Your task to perform on an android device: stop showing notifications on the lock screen Image 0: 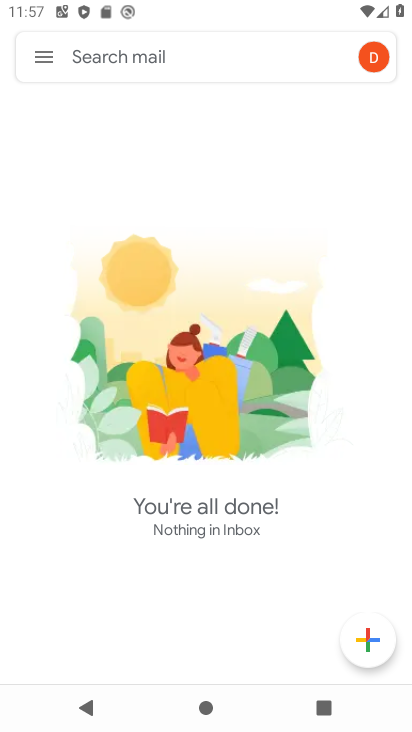
Step 0: press home button
Your task to perform on an android device: stop showing notifications on the lock screen Image 1: 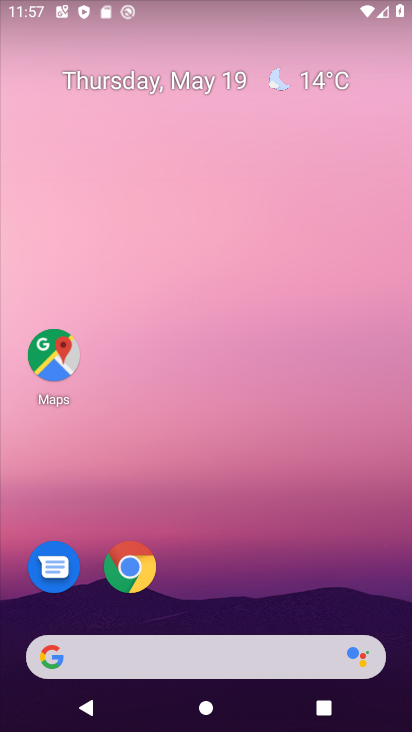
Step 1: drag from (311, 538) to (358, 101)
Your task to perform on an android device: stop showing notifications on the lock screen Image 2: 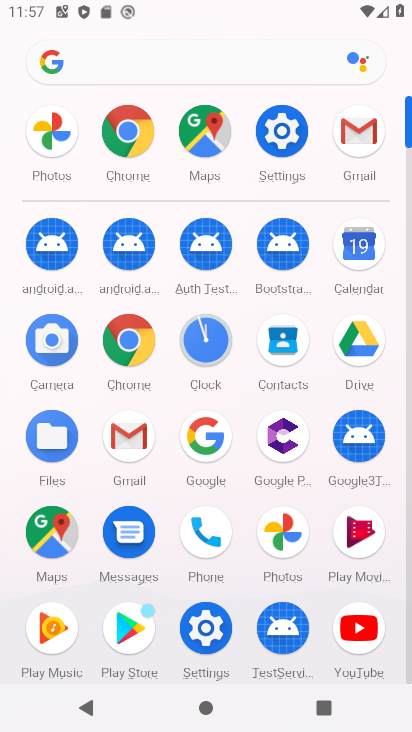
Step 2: click (281, 147)
Your task to perform on an android device: stop showing notifications on the lock screen Image 3: 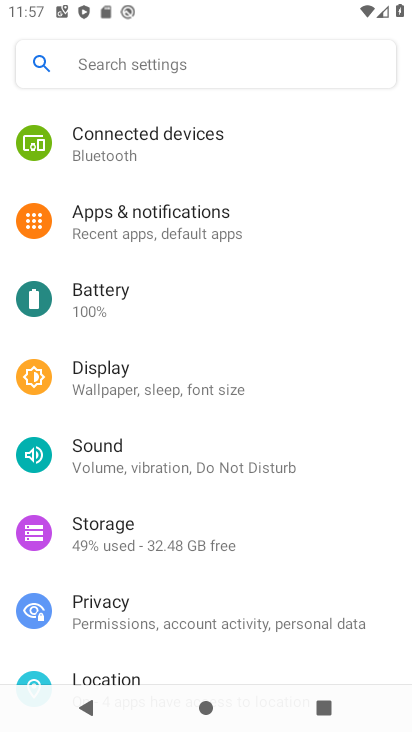
Step 3: click (212, 230)
Your task to perform on an android device: stop showing notifications on the lock screen Image 4: 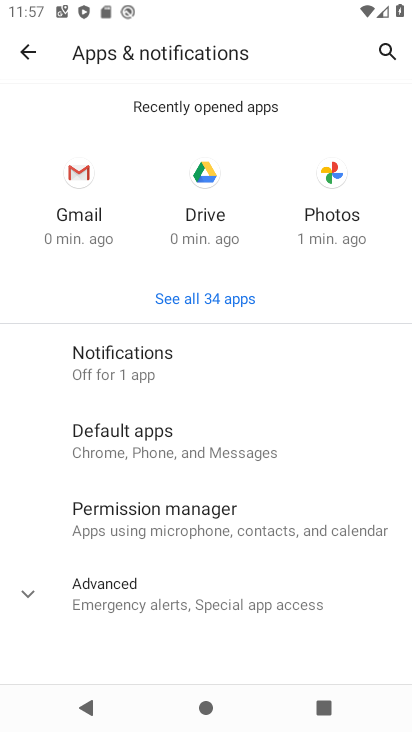
Step 4: click (143, 367)
Your task to perform on an android device: stop showing notifications on the lock screen Image 5: 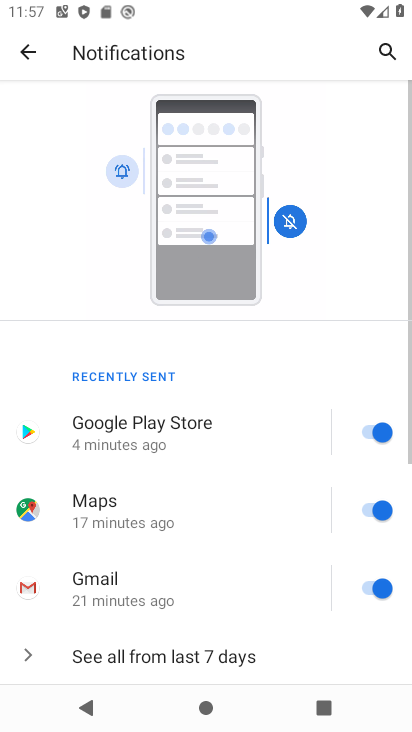
Step 5: drag from (210, 608) to (304, 219)
Your task to perform on an android device: stop showing notifications on the lock screen Image 6: 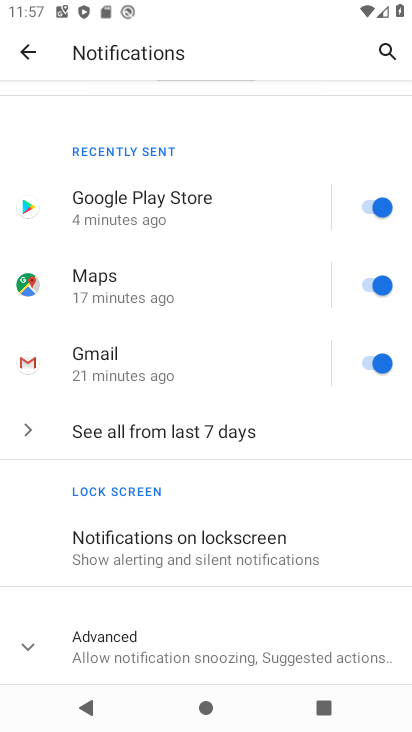
Step 6: click (191, 555)
Your task to perform on an android device: stop showing notifications on the lock screen Image 7: 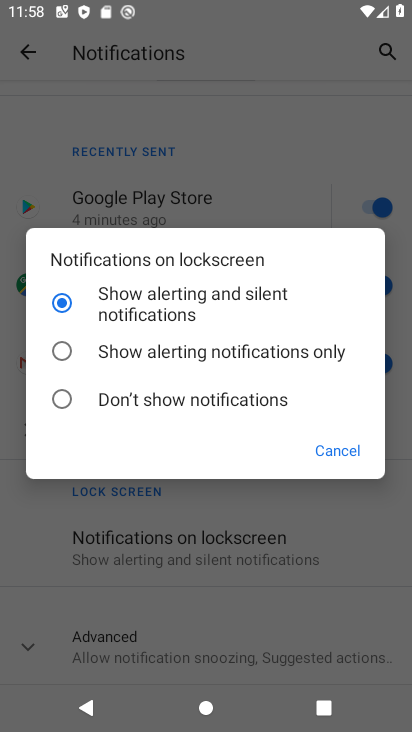
Step 7: click (222, 419)
Your task to perform on an android device: stop showing notifications on the lock screen Image 8: 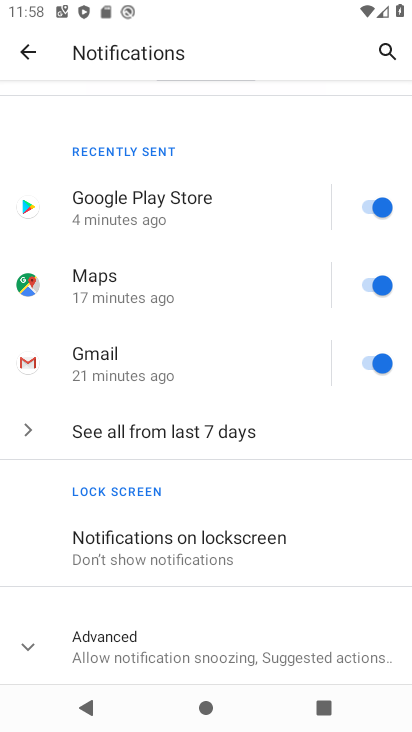
Step 8: task complete